Your task to perform on an android device: Go to Yahoo.com Image 0: 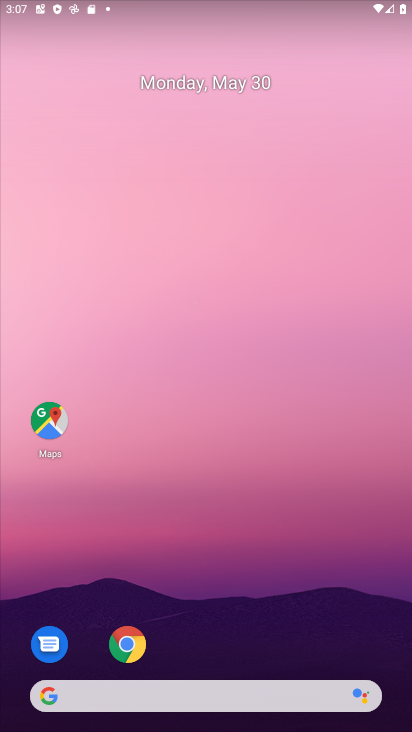
Step 0: drag from (308, 644) to (232, 193)
Your task to perform on an android device: Go to Yahoo.com Image 1: 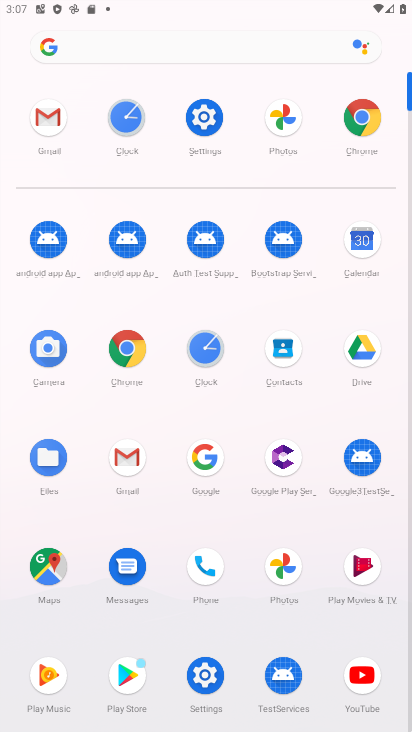
Step 1: click (212, 42)
Your task to perform on an android device: Go to Yahoo.com Image 2: 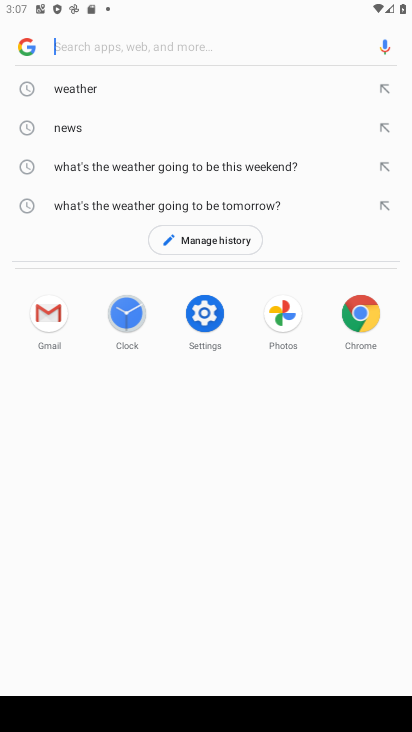
Step 2: type "yahoo.com"
Your task to perform on an android device: Go to Yahoo.com Image 3: 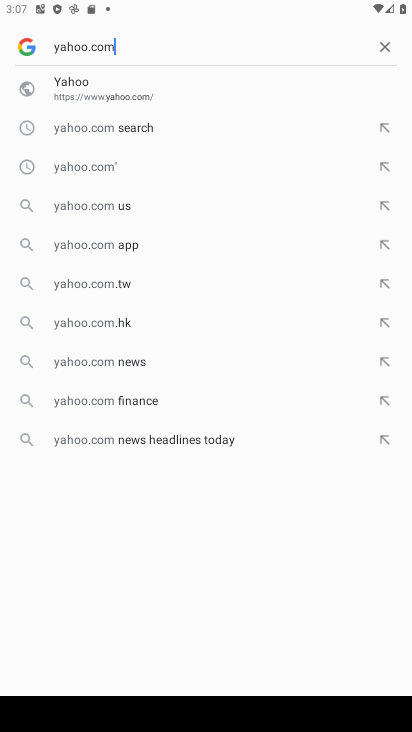
Step 3: click (122, 83)
Your task to perform on an android device: Go to Yahoo.com Image 4: 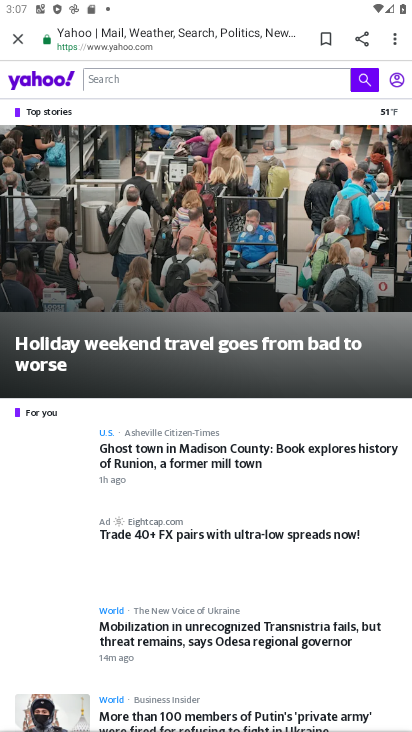
Step 4: task complete